Your task to perform on an android device: turn off data saver in the chrome app Image 0: 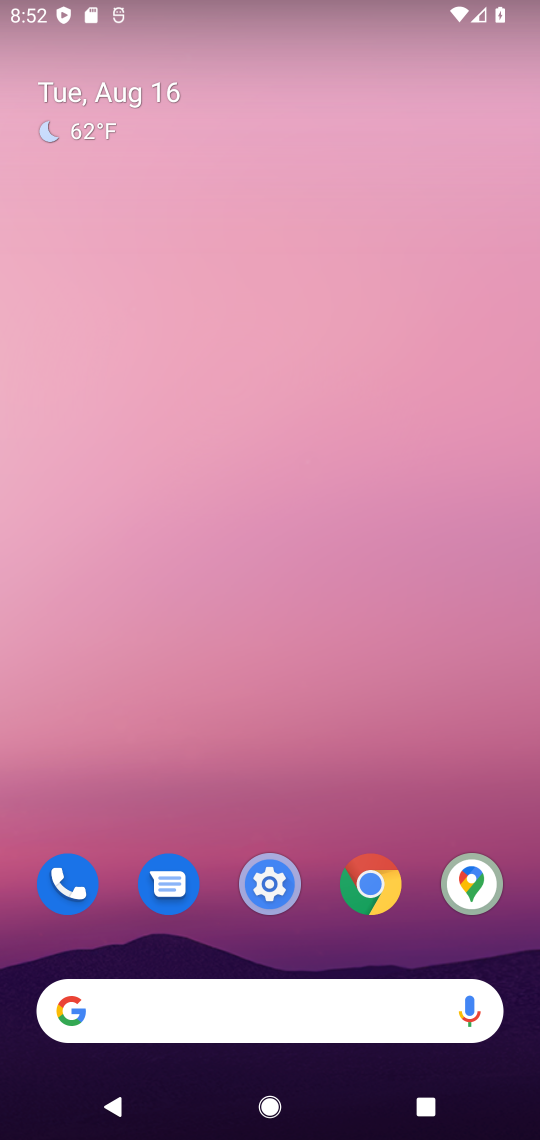
Step 0: click (369, 885)
Your task to perform on an android device: turn off data saver in the chrome app Image 1: 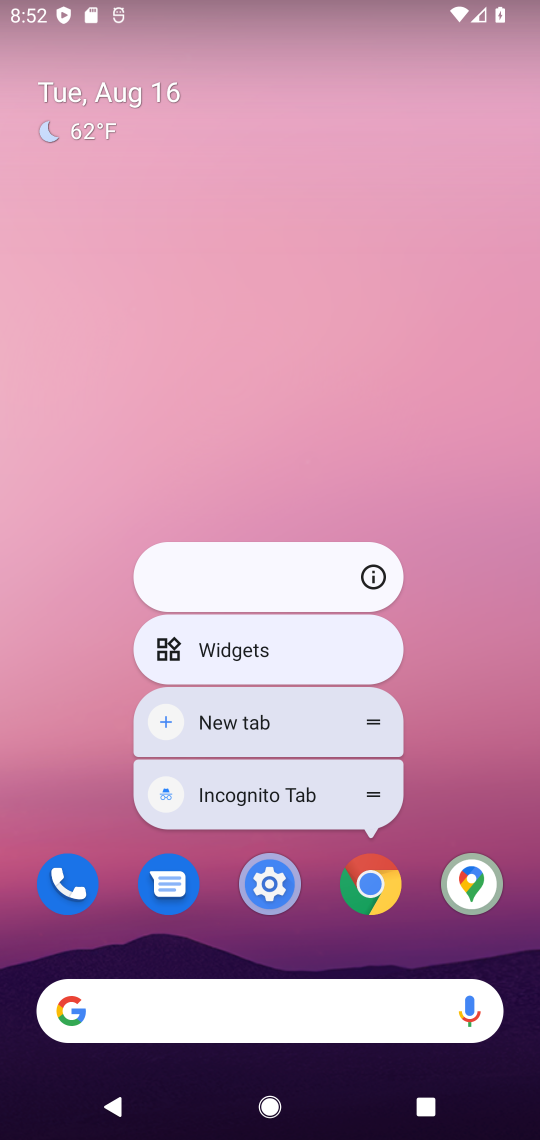
Step 1: click (369, 885)
Your task to perform on an android device: turn off data saver in the chrome app Image 2: 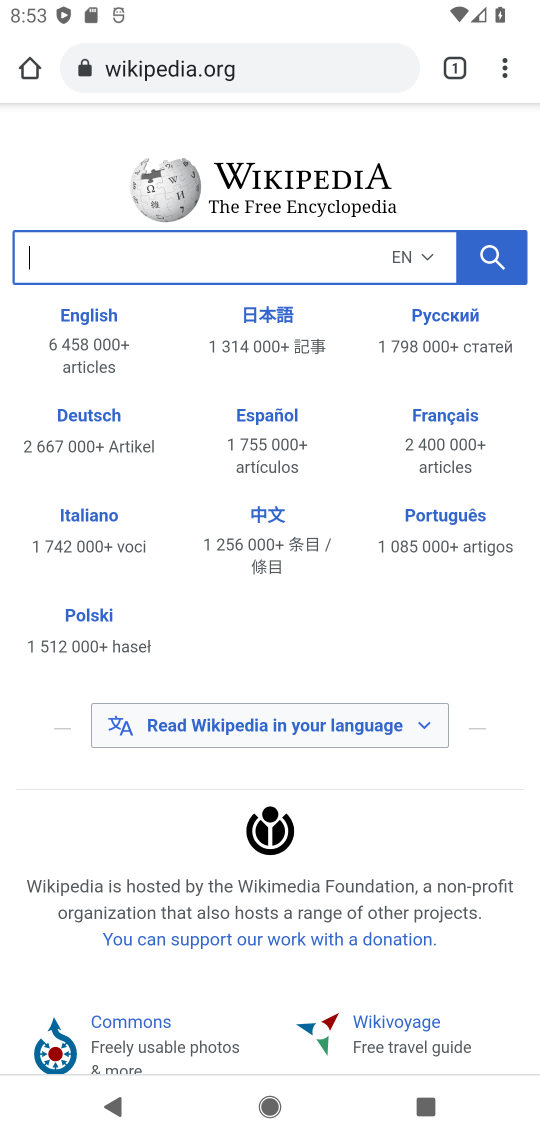
Step 2: click (499, 77)
Your task to perform on an android device: turn off data saver in the chrome app Image 3: 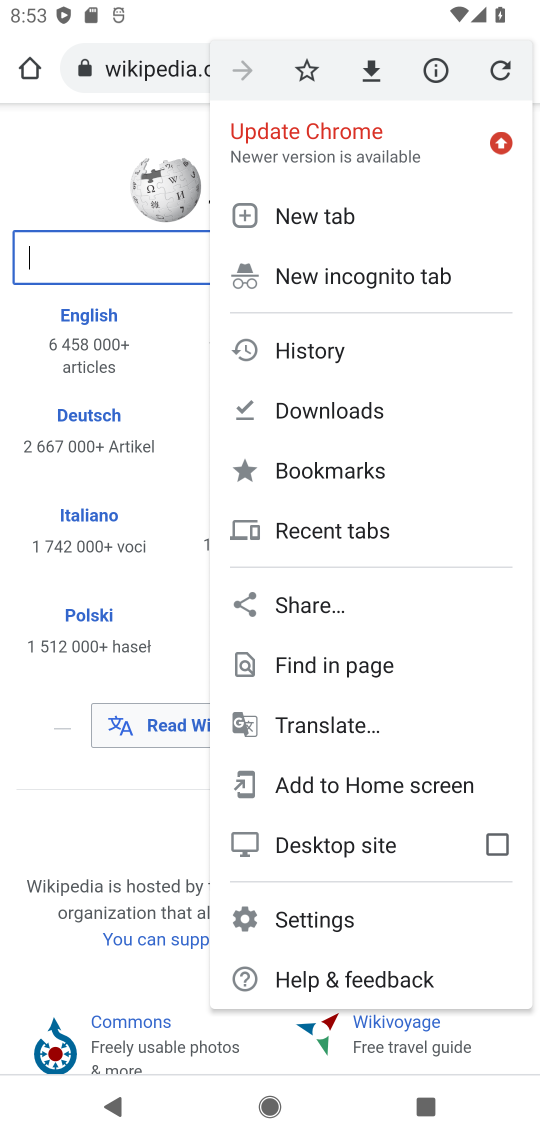
Step 3: click (321, 914)
Your task to perform on an android device: turn off data saver in the chrome app Image 4: 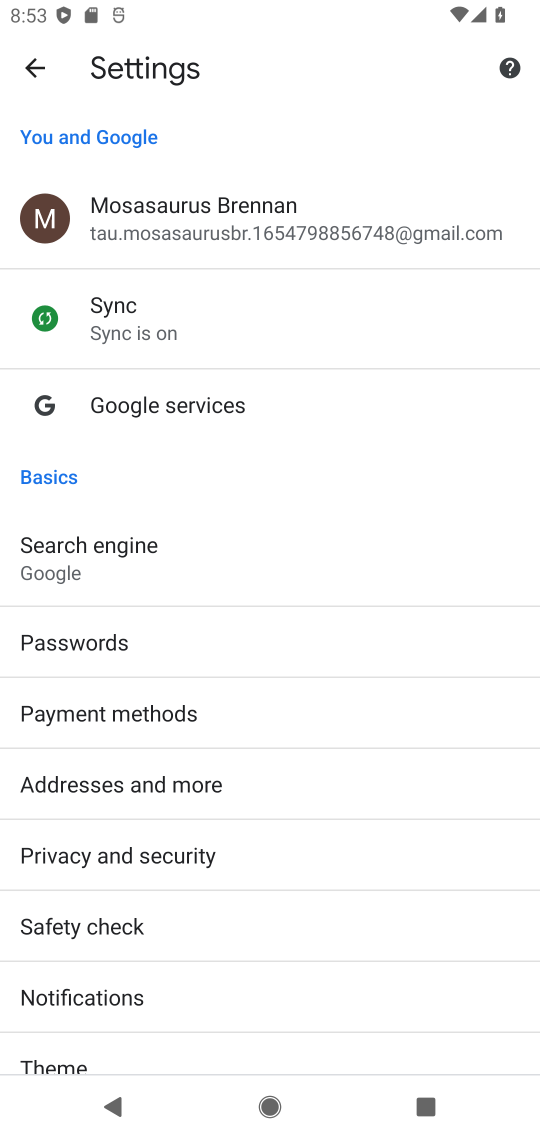
Step 4: drag from (321, 914) to (303, 434)
Your task to perform on an android device: turn off data saver in the chrome app Image 5: 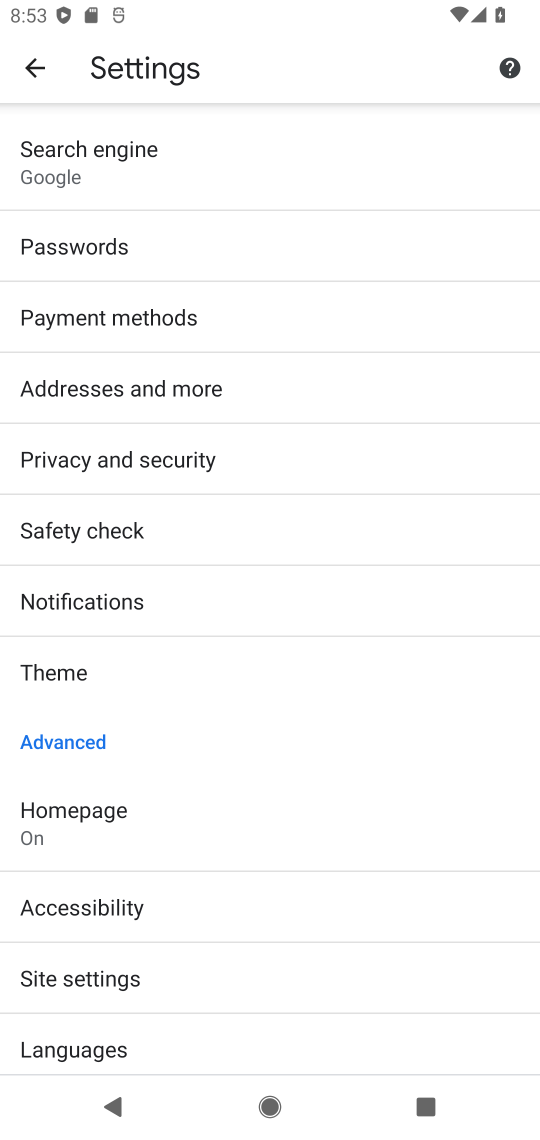
Step 5: drag from (275, 992) to (265, 505)
Your task to perform on an android device: turn off data saver in the chrome app Image 6: 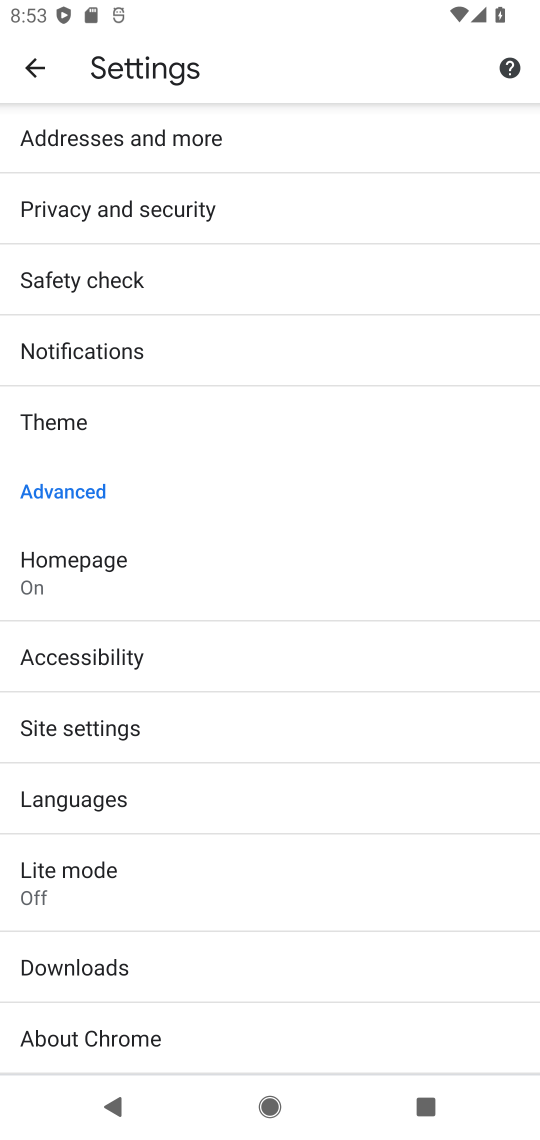
Step 6: click (61, 886)
Your task to perform on an android device: turn off data saver in the chrome app Image 7: 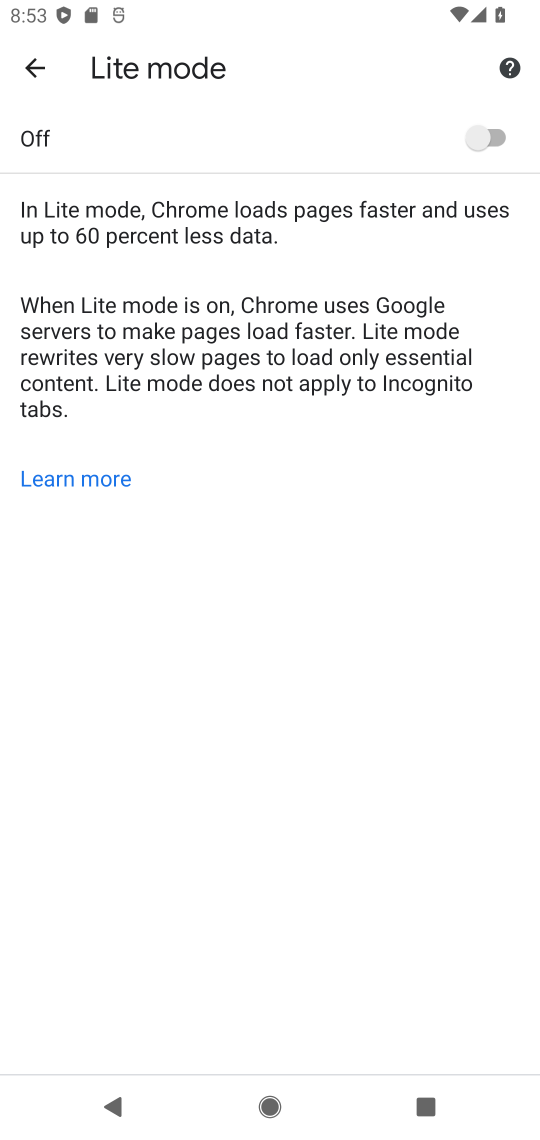
Step 7: task complete